Your task to perform on an android device: add a contact in the contacts app Image 0: 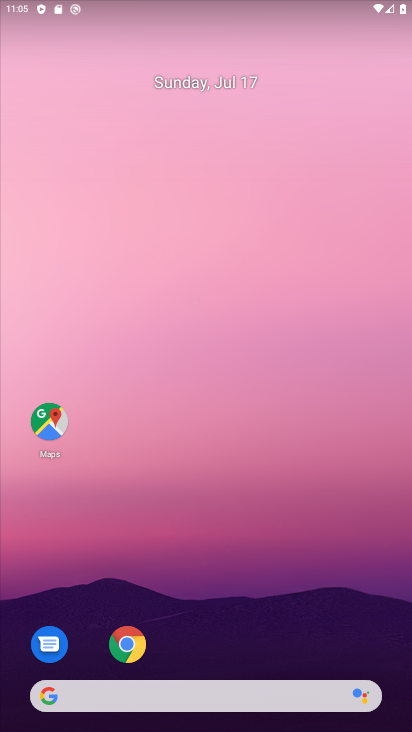
Step 0: drag from (268, 627) to (256, 157)
Your task to perform on an android device: add a contact in the contacts app Image 1: 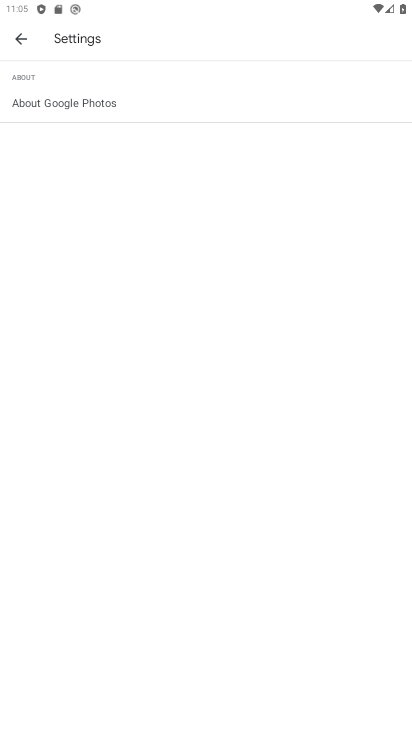
Step 1: press home button
Your task to perform on an android device: add a contact in the contacts app Image 2: 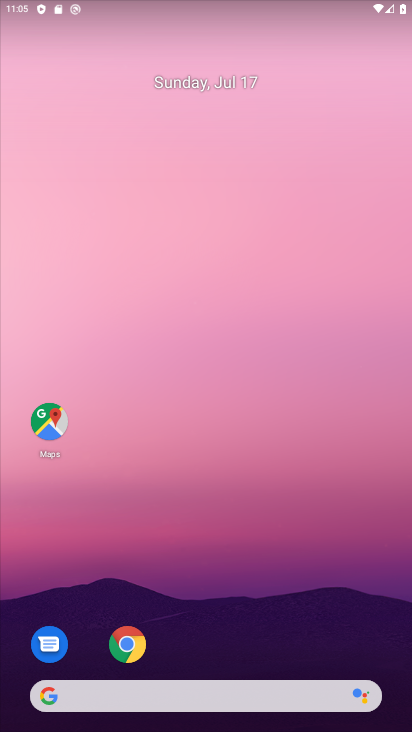
Step 2: drag from (328, 574) to (251, 3)
Your task to perform on an android device: add a contact in the contacts app Image 3: 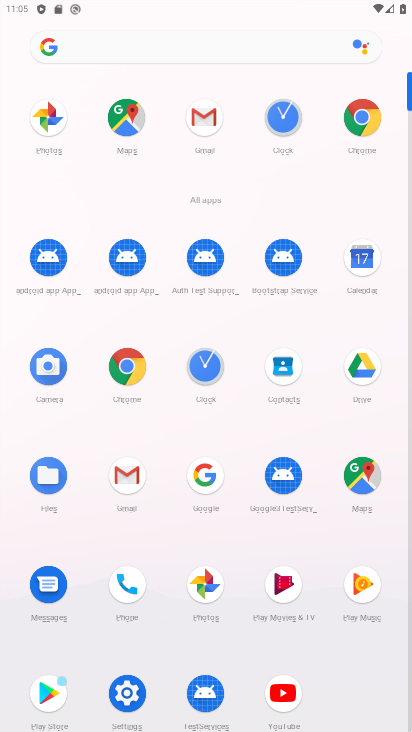
Step 3: click (284, 372)
Your task to perform on an android device: add a contact in the contacts app Image 4: 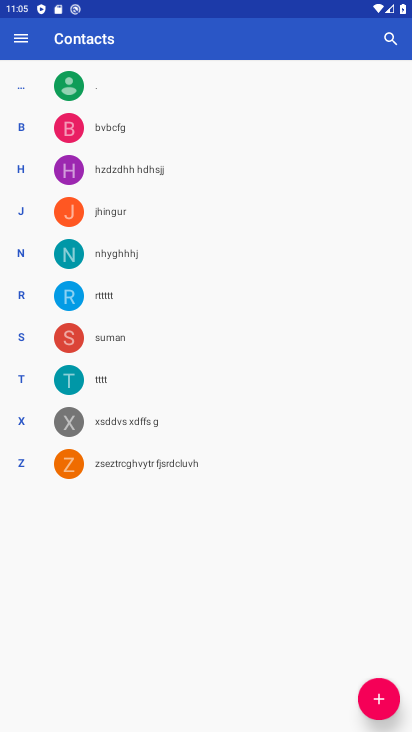
Step 4: click (386, 697)
Your task to perform on an android device: add a contact in the contacts app Image 5: 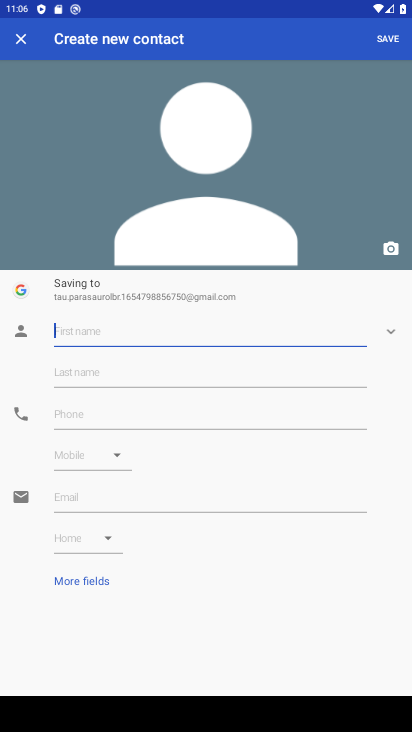
Step 5: type "restun"
Your task to perform on an android device: add a contact in the contacts app Image 6: 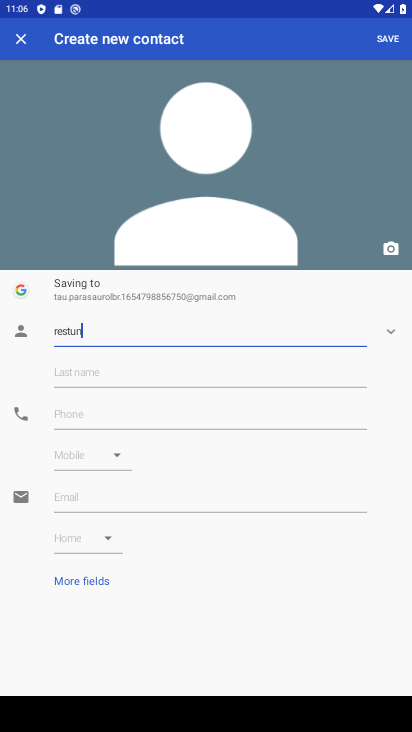
Step 6: click (394, 48)
Your task to perform on an android device: add a contact in the contacts app Image 7: 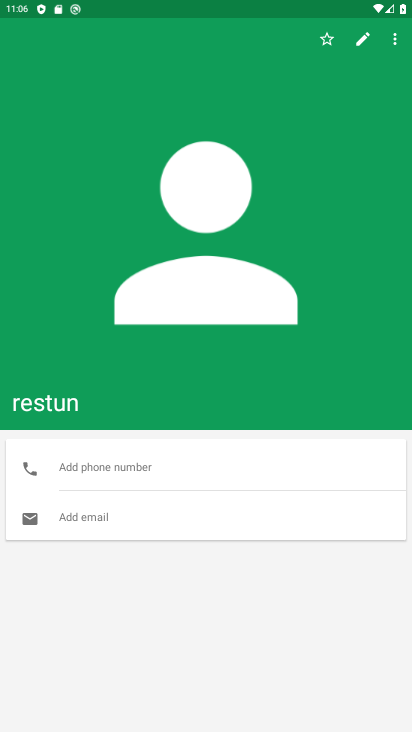
Step 7: task complete